Your task to perform on an android device: toggle show notifications on the lock screen Image 0: 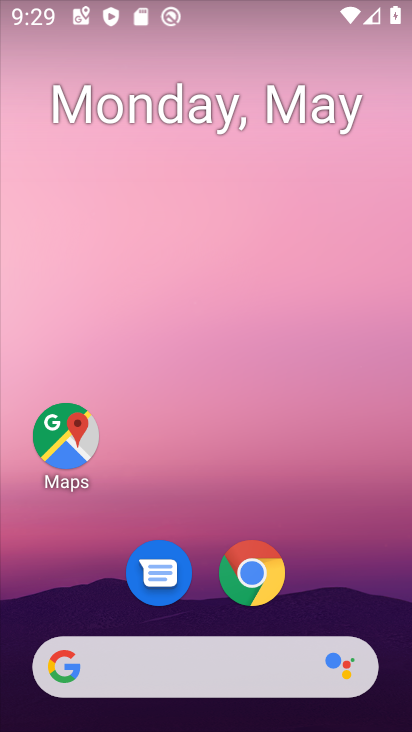
Step 0: drag from (355, 592) to (333, 9)
Your task to perform on an android device: toggle show notifications on the lock screen Image 1: 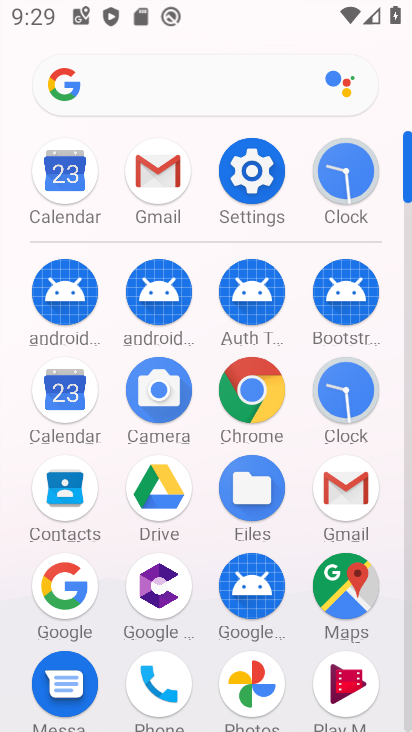
Step 1: click (268, 172)
Your task to perform on an android device: toggle show notifications on the lock screen Image 2: 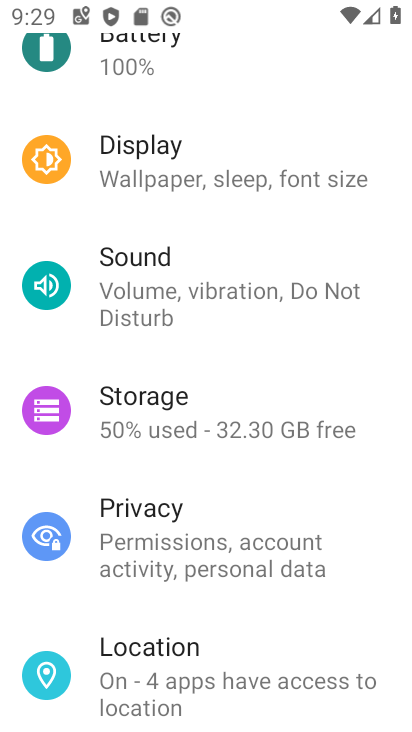
Step 2: click (234, 652)
Your task to perform on an android device: toggle show notifications on the lock screen Image 3: 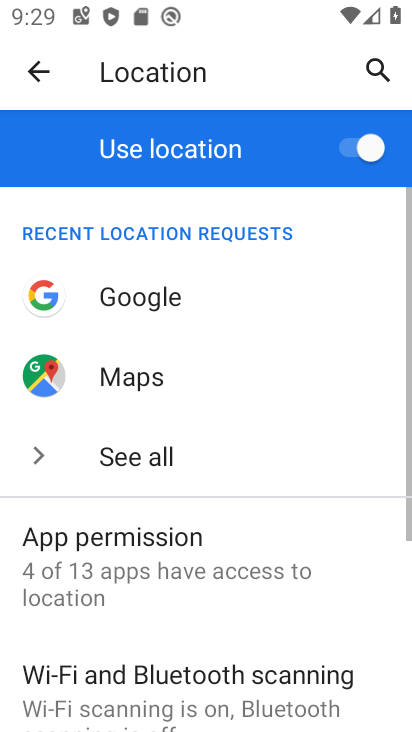
Step 3: click (38, 78)
Your task to perform on an android device: toggle show notifications on the lock screen Image 4: 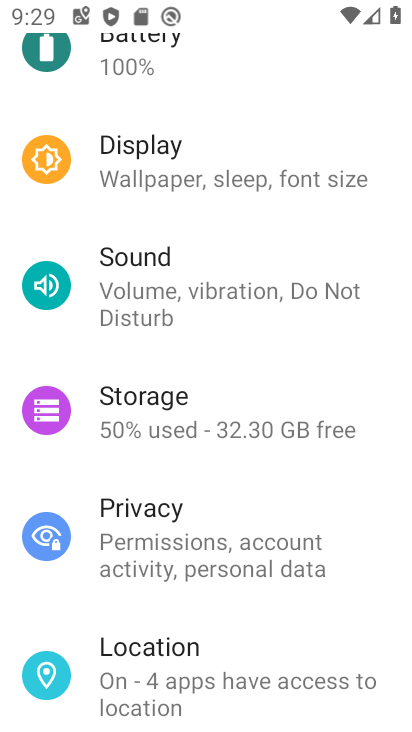
Step 4: click (187, 662)
Your task to perform on an android device: toggle show notifications on the lock screen Image 5: 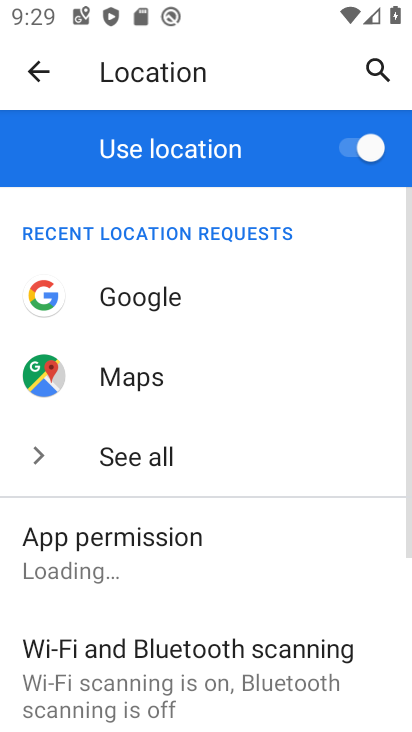
Step 5: drag from (187, 662) to (184, 319)
Your task to perform on an android device: toggle show notifications on the lock screen Image 6: 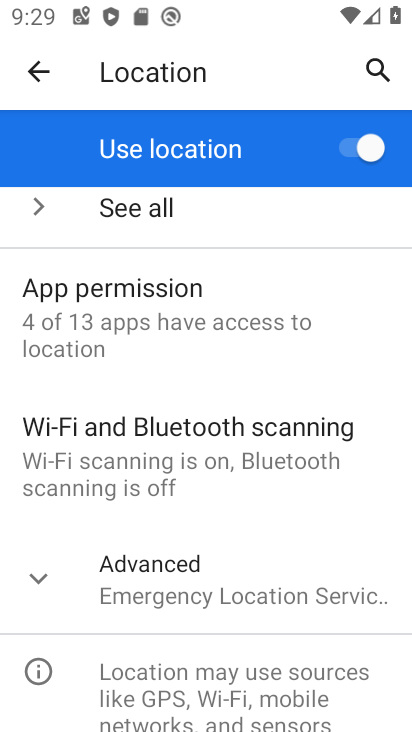
Step 6: click (184, 319)
Your task to perform on an android device: toggle show notifications on the lock screen Image 7: 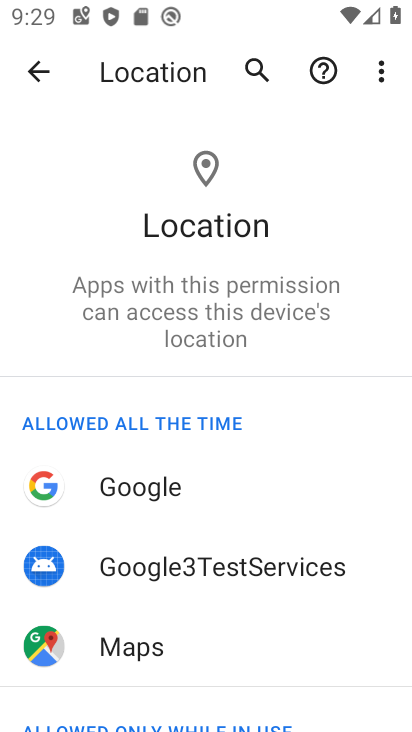
Step 7: click (56, 82)
Your task to perform on an android device: toggle show notifications on the lock screen Image 8: 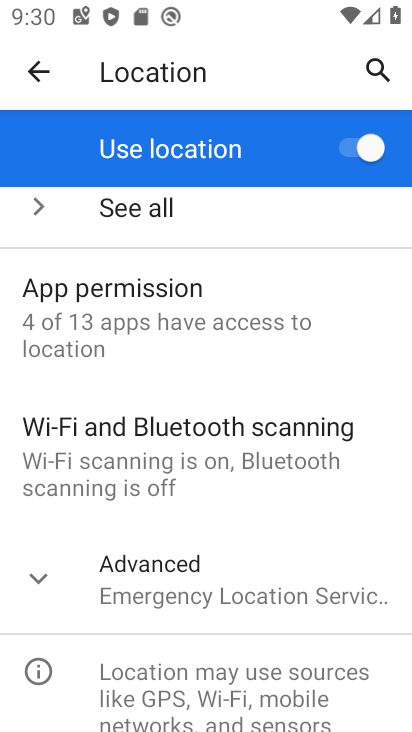
Step 8: click (97, 599)
Your task to perform on an android device: toggle show notifications on the lock screen Image 9: 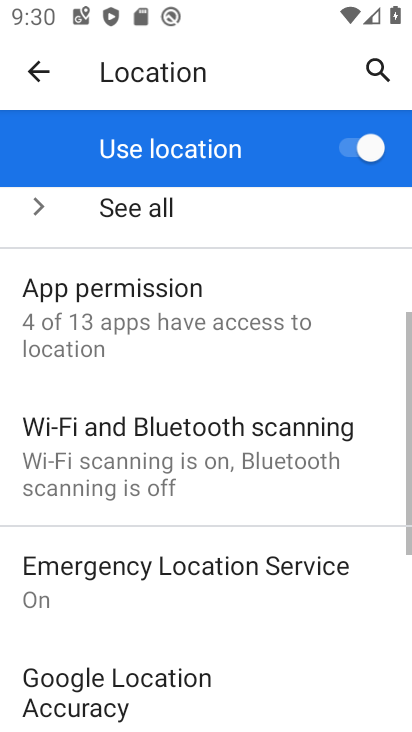
Step 9: task complete